Your task to perform on an android device: toggle translation in the chrome app Image 0: 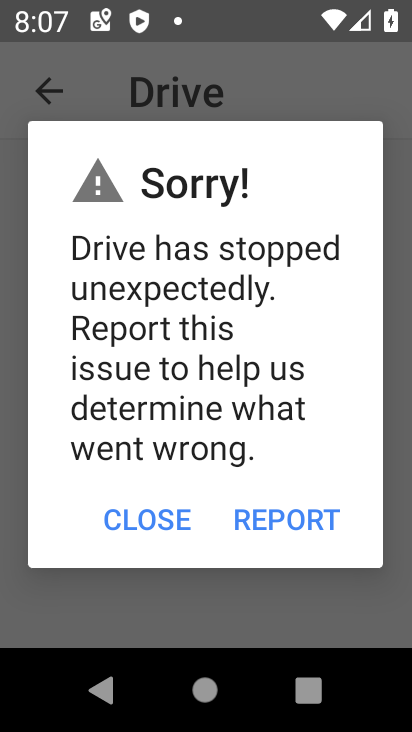
Step 0: press home button
Your task to perform on an android device: toggle translation in the chrome app Image 1: 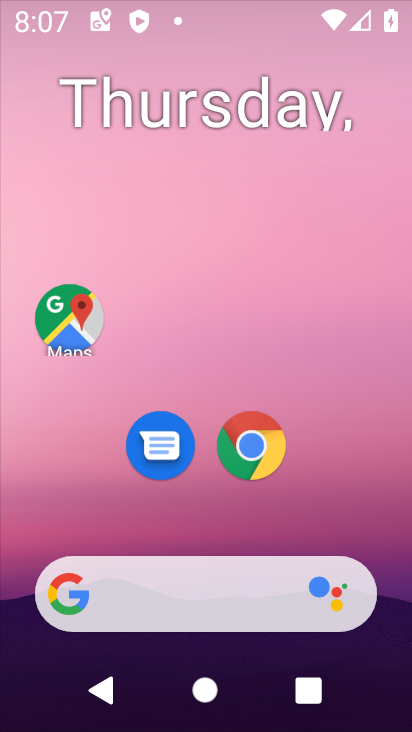
Step 1: drag from (391, 630) to (275, 50)
Your task to perform on an android device: toggle translation in the chrome app Image 2: 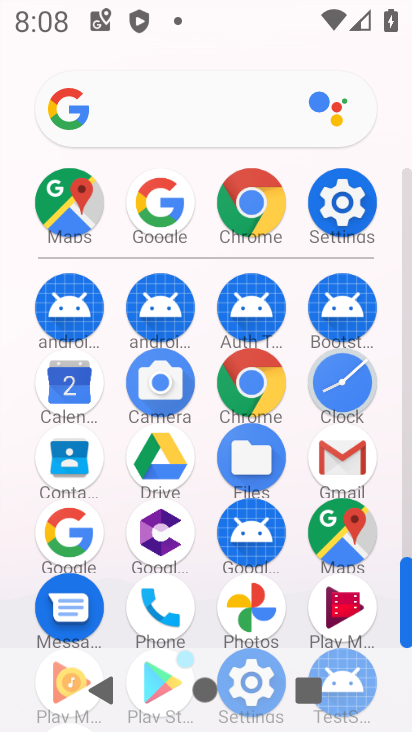
Step 2: click (264, 395)
Your task to perform on an android device: toggle translation in the chrome app Image 3: 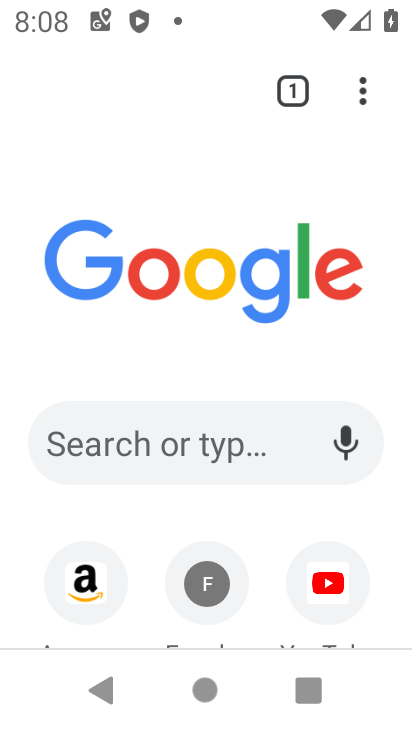
Step 3: click (365, 95)
Your task to perform on an android device: toggle translation in the chrome app Image 4: 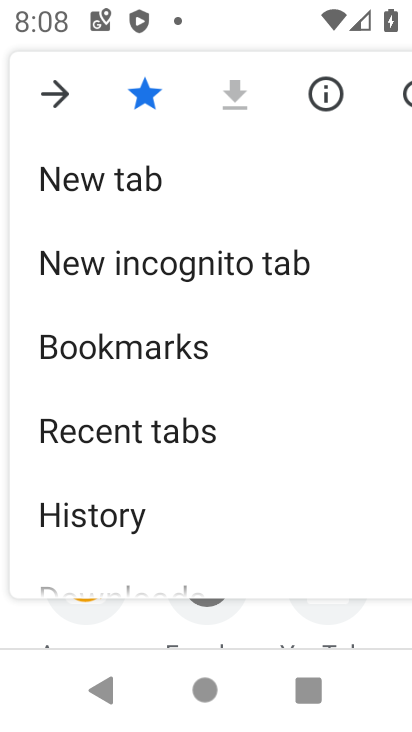
Step 4: drag from (127, 554) to (184, 34)
Your task to perform on an android device: toggle translation in the chrome app Image 5: 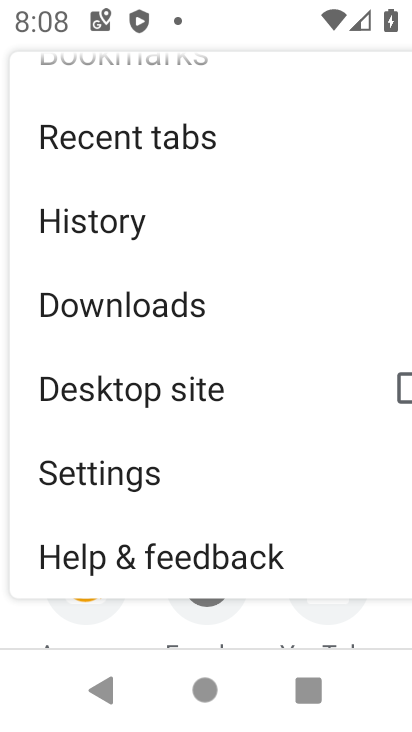
Step 5: click (126, 484)
Your task to perform on an android device: toggle translation in the chrome app Image 6: 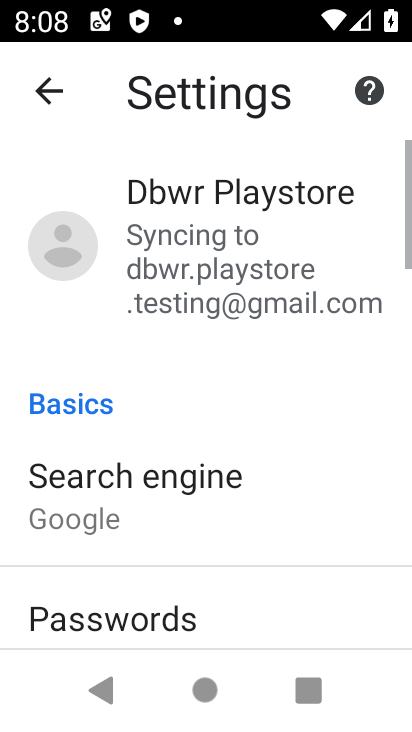
Step 6: drag from (169, 569) to (238, 77)
Your task to perform on an android device: toggle translation in the chrome app Image 7: 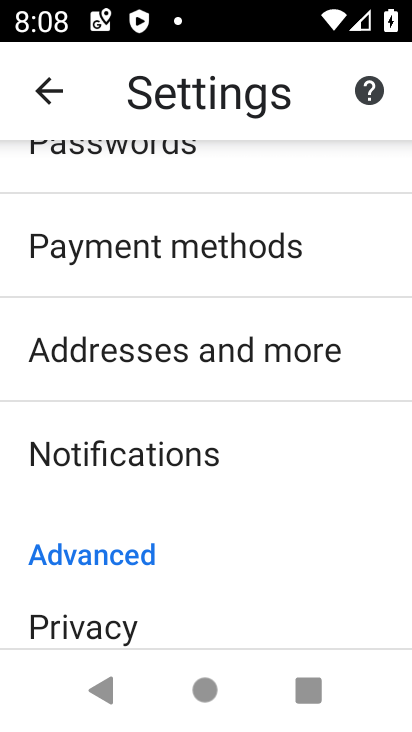
Step 7: drag from (229, 467) to (218, 179)
Your task to perform on an android device: toggle translation in the chrome app Image 8: 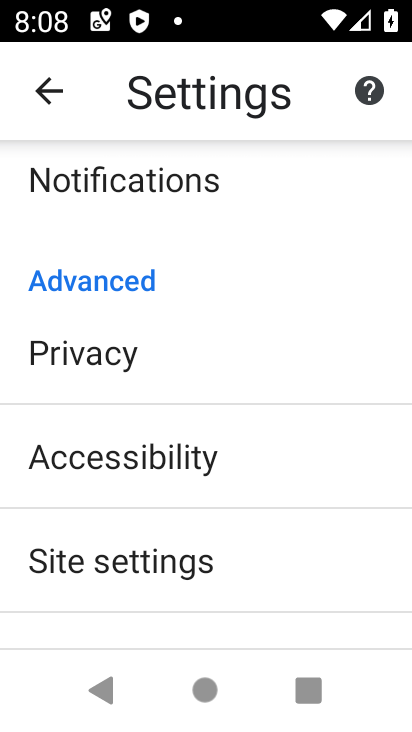
Step 8: drag from (191, 586) to (203, 225)
Your task to perform on an android device: toggle translation in the chrome app Image 9: 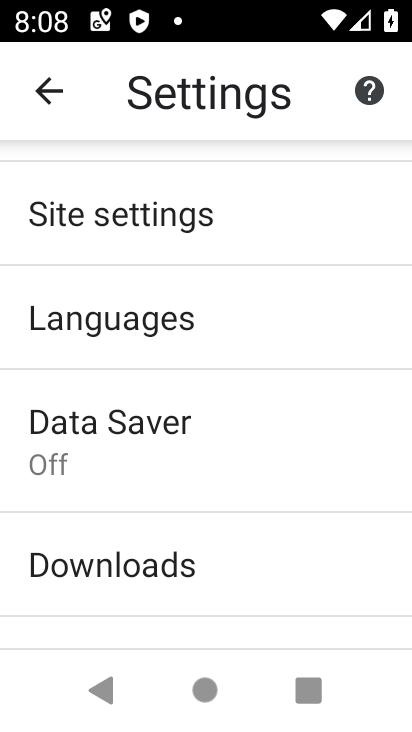
Step 9: click (207, 346)
Your task to perform on an android device: toggle translation in the chrome app Image 10: 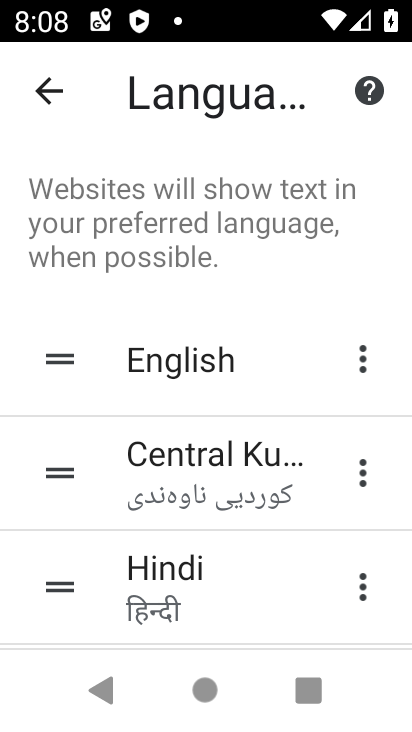
Step 10: drag from (264, 604) to (193, 192)
Your task to perform on an android device: toggle translation in the chrome app Image 11: 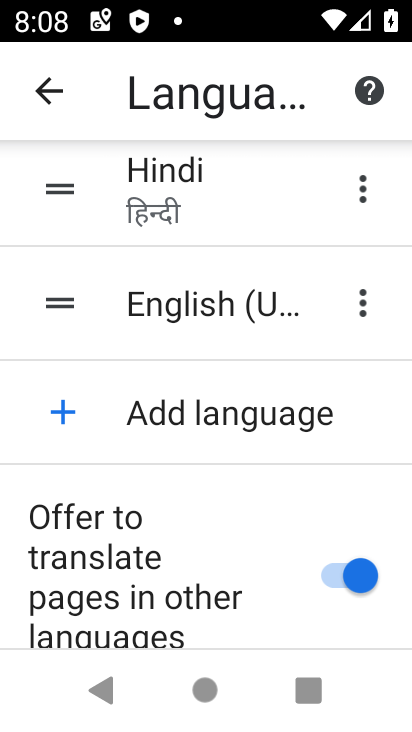
Step 11: click (291, 573)
Your task to perform on an android device: toggle translation in the chrome app Image 12: 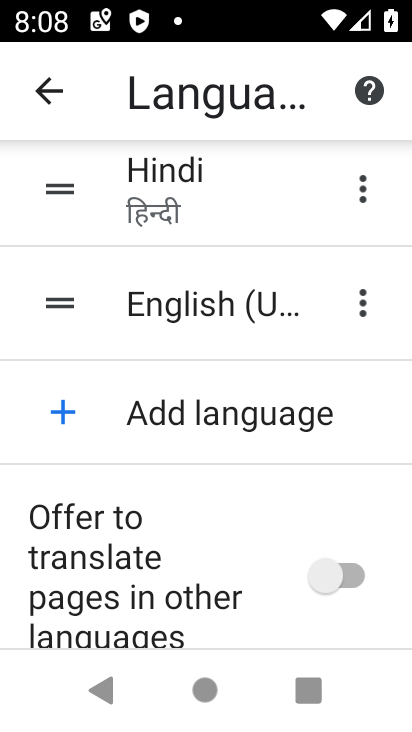
Step 12: task complete